Your task to perform on an android device: Show me recent news Image 0: 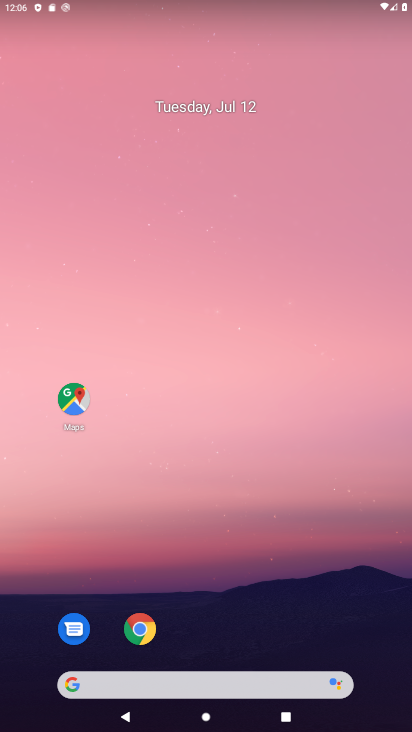
Step 0: drag from (245, 5) to (232, 645)
Your task to perform on an android device: Show me recent news Image 1: 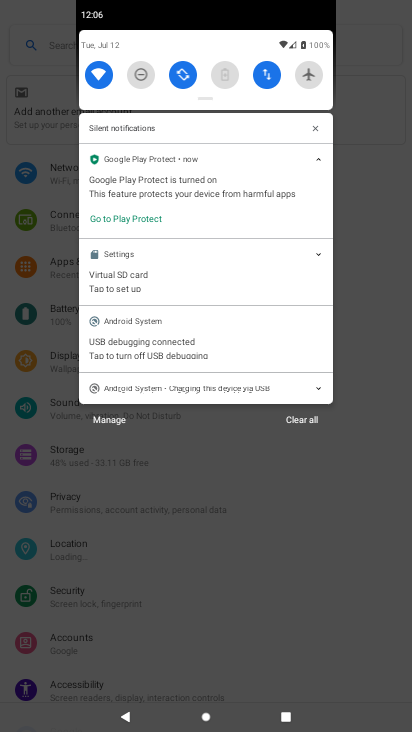
Step 1: task complete